Your task to perform on an android device: toggle priority inbox in the gmail app Image 0: 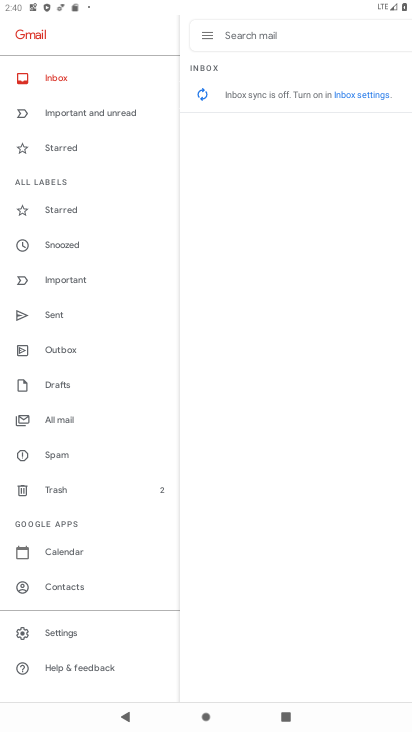
Step 0: press home button
Your task to perform on an android device: toggle priority inbox in the gmail app Image 1: 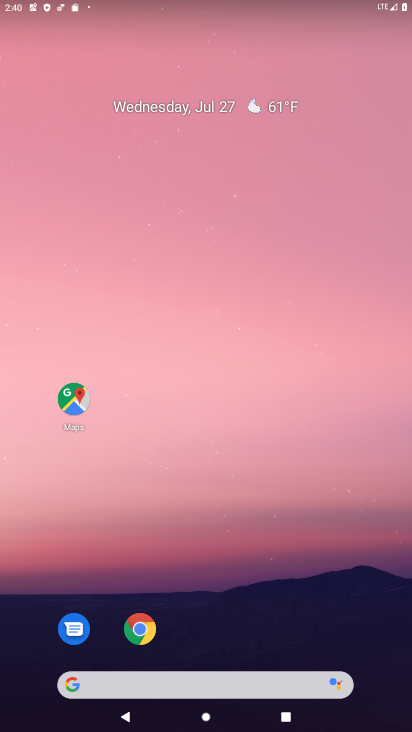
Step 1: drag from (161, 679) to (232, 54)
Your task to perform on an android device: toggle priority inbox in the gmail app Image 2: 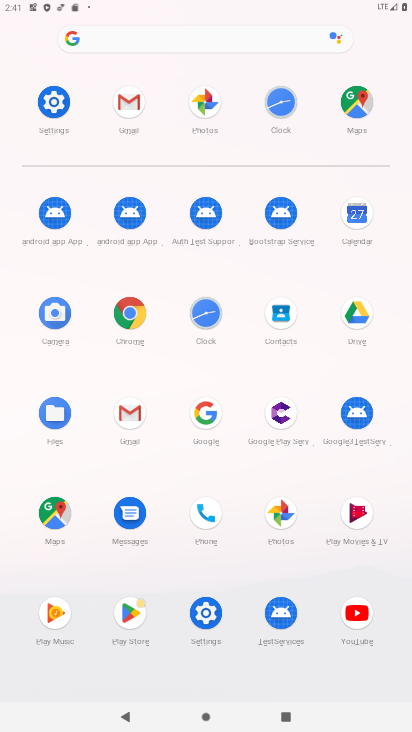
Step 2: click (126, 101)
Your task to perform on an android device: toggle priority inbox in the gmail app Image 3: 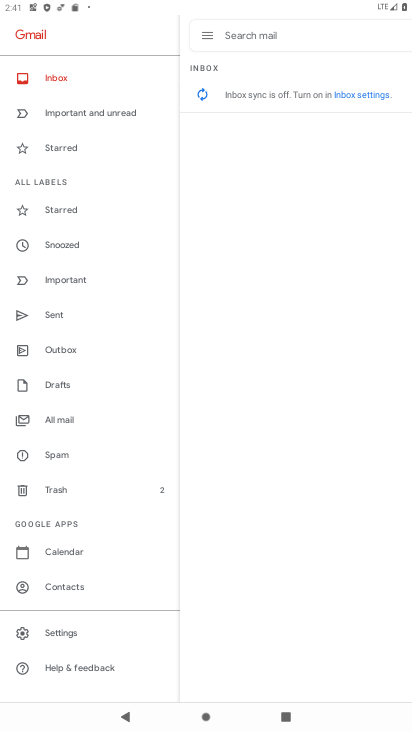
Step 3: click (68, 630)
Your task to perform on an android device: toggle priority inbox in the gmail app Image 4: 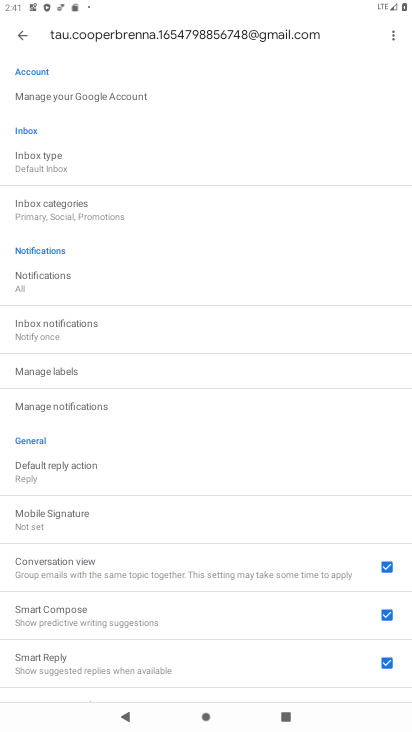
Step 4: click (38, 159)
Your task to perform on an android device: toggle priority inbox in the gmail app Image 5: 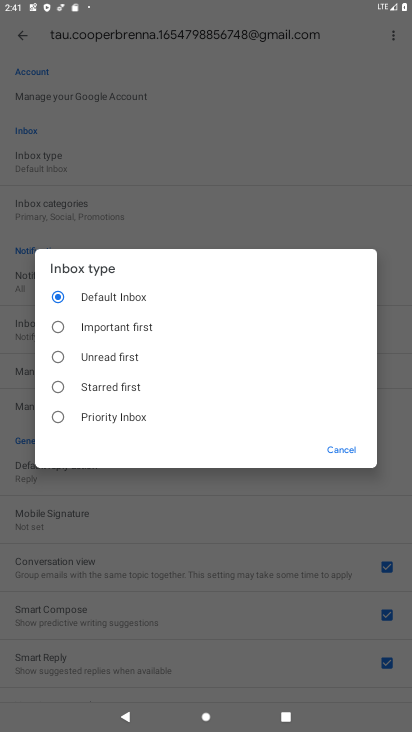
Step 5: click (59, 416)
Your task to perform on an android device: toggle priority inbox in the gmail app Image 6: 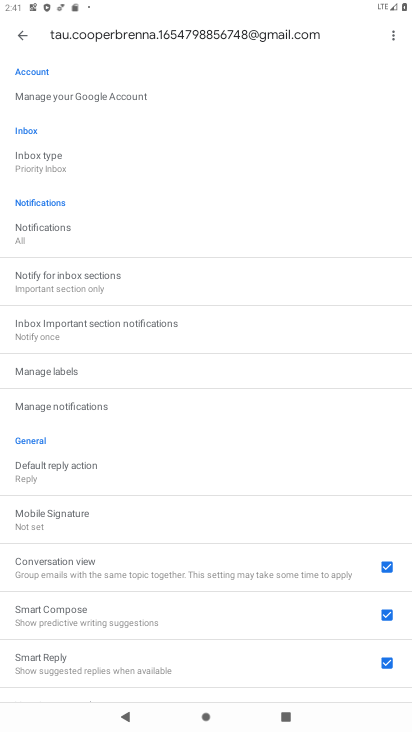
Step 6: task complete